Your task to perform on an android device: toggle improve location accuracy Image 0: 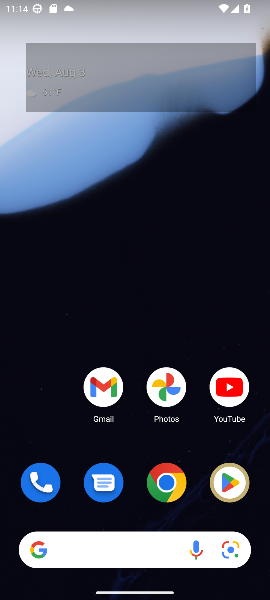
Step 0: drag from (137, 524) to (107, 195)
Your task to perform on an android device: toggle improve location accuracy Image 1: 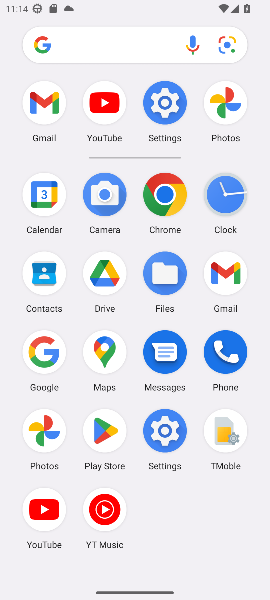
Step 1: click (174, 458)
Your task to perform on an android device: toggle improve location accuracy Image 2: 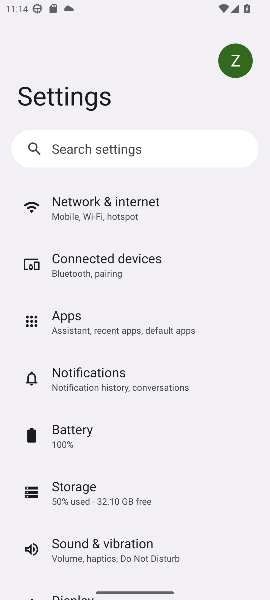
Step 2: task complete